Your task to perform on an android device: stop showing notifications on the lock screen Image 0: 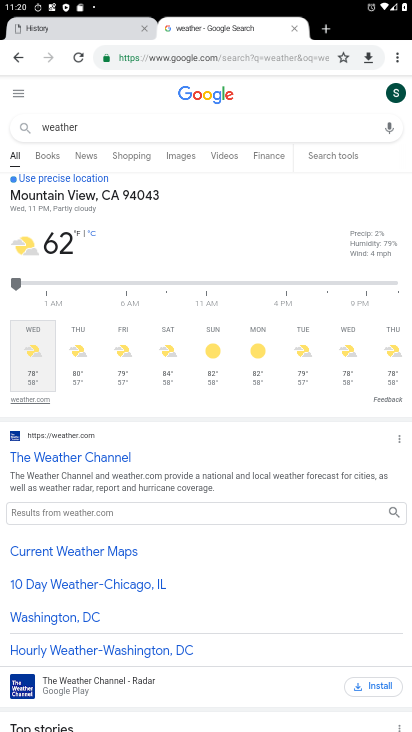
Step 0: press home button
Your task to perform on an android device: stop showing notifications on the lock screen Image 1: 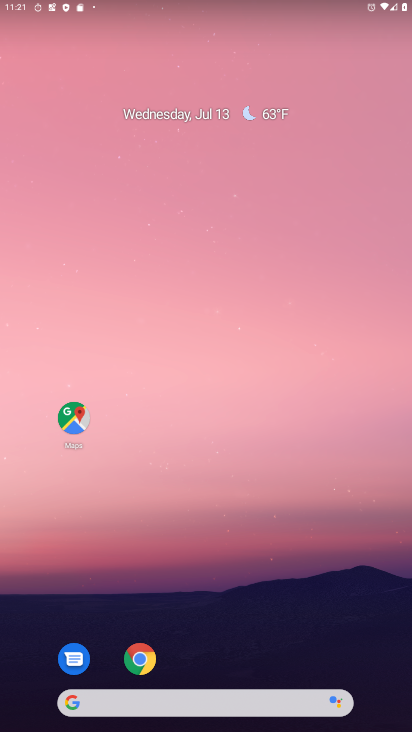
Step 1: drag from (222, 625) to (216, 148)
Your task to perform on an android device: stop showing notifications on the lock screen Image 2: 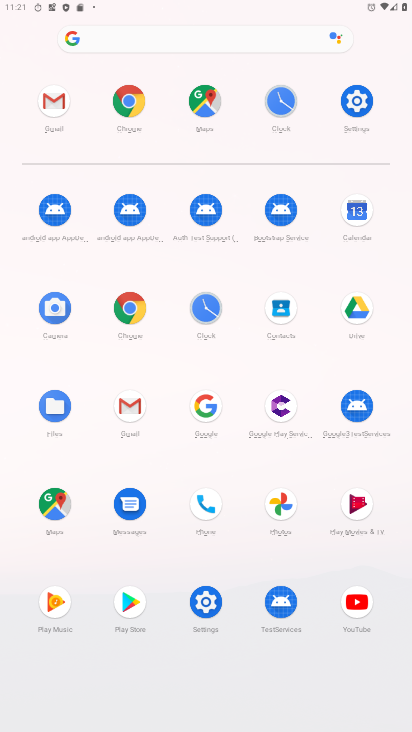
Step 2: click (358, 103)
Your task to perform on an android device: stop showing notifications on the lock screen Image 3: 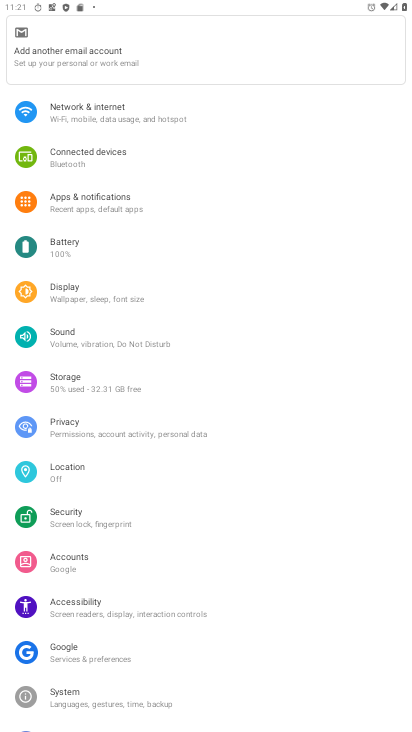
Step 3: click (115, 207)
Your task to perform on an android device: stop showing notifications on the lock screen Image 4: 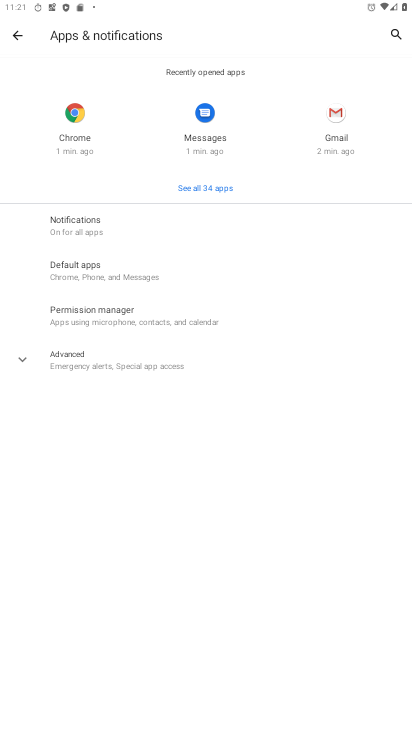
Step 4: click (101, 226)
Your task to perform on an android device: stop showing notifications on the lock screen Image 5: 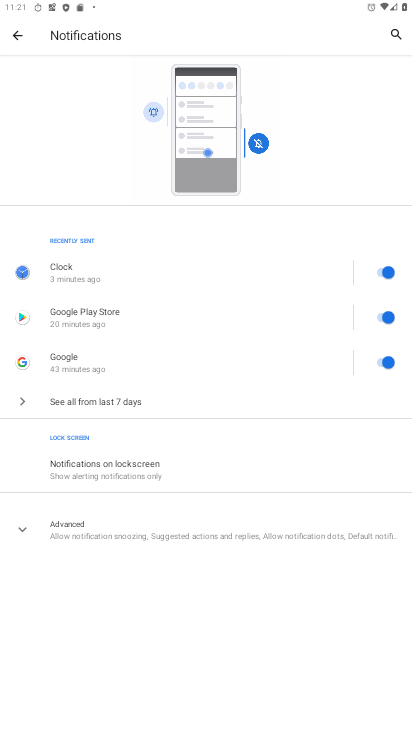
Step 5: click (134, 453)
Your task to perform on an android device: stop showing notifications on the lock screen Image 6: 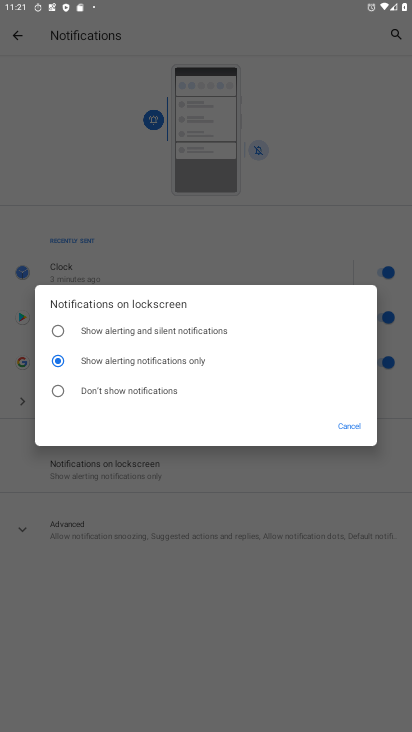
Step 6: click (135, 390)
Your task to perform on an android device: stop showing notifications on the lock screen Image 7: 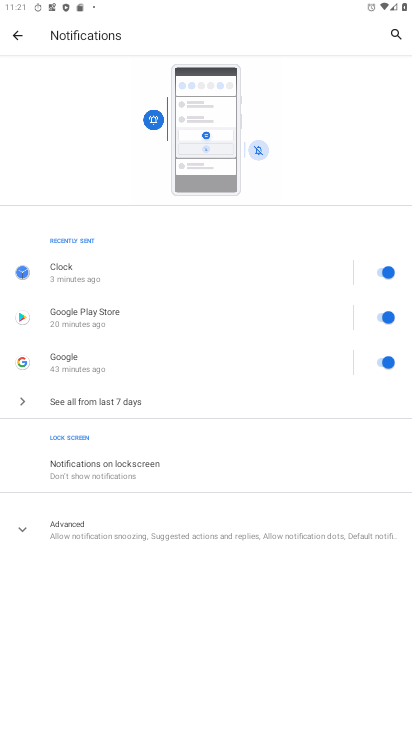
Step 7: task complete